Your task to perform on an android device: Open the calendar app, open the side menu, and click the "Day" option Image 0: 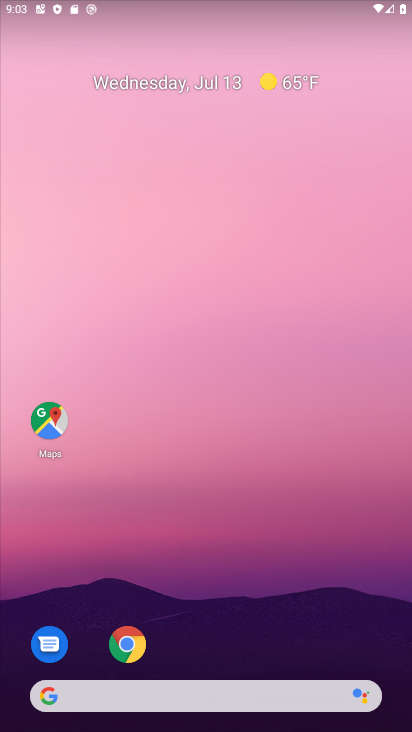
Step 0: drag from (289, 577) to (243, 9)
Your task to perform on an android device: Open the calendar app, open the side menu, and click the "Day" option Image 1: 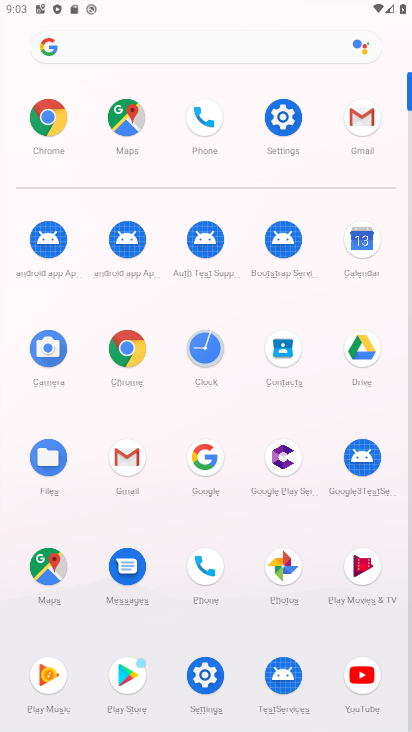
Step 1: click (367, 251)
Your task to perform on an android device: Open the calendar app, open the side menu, and click the "Day" option Image 2: 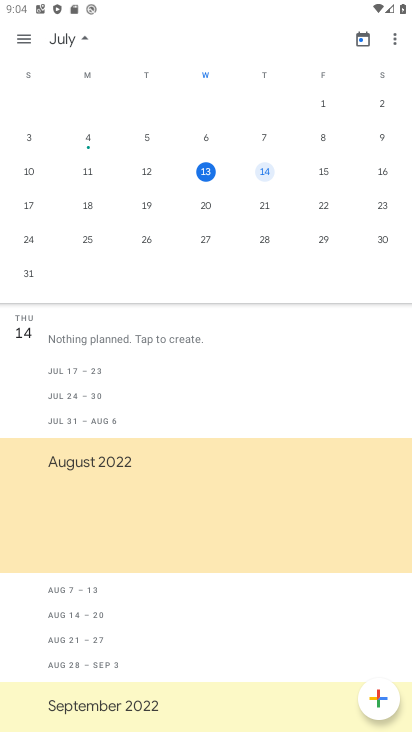
Step 2: click (24, 39)
Your task to perform on an android device: Open the calendar app, open the side menu, and click the "Day" option Image 3: 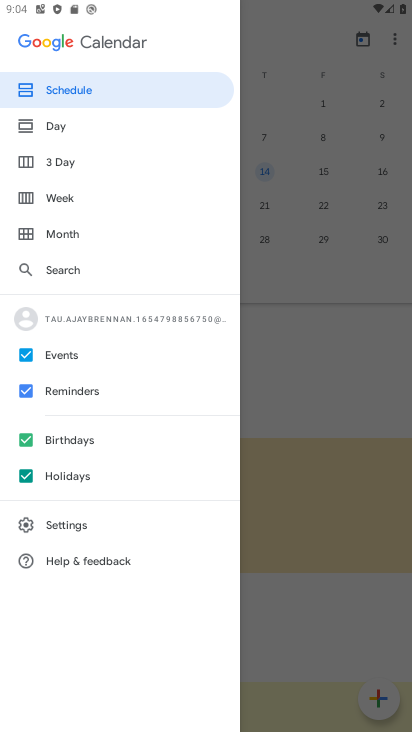
Step 3: click (56, 130)
Your task to perform on an android device: Open the calendar app, open the side menu, and click the "Day" option Image 4: 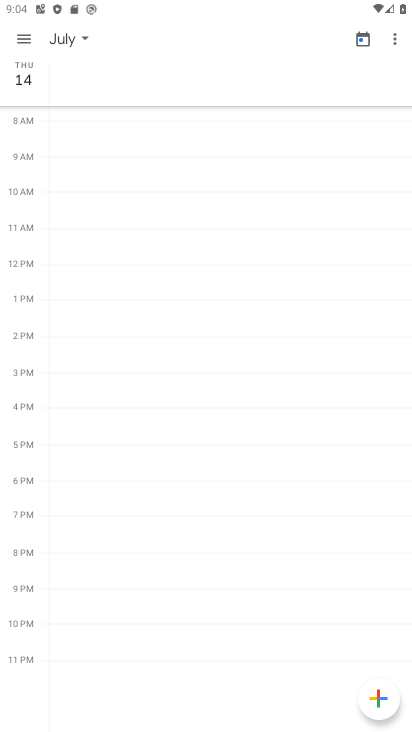
Step 4: task complete